Your task to perform on an android device: toggle pop-ups in chrome Image 0: 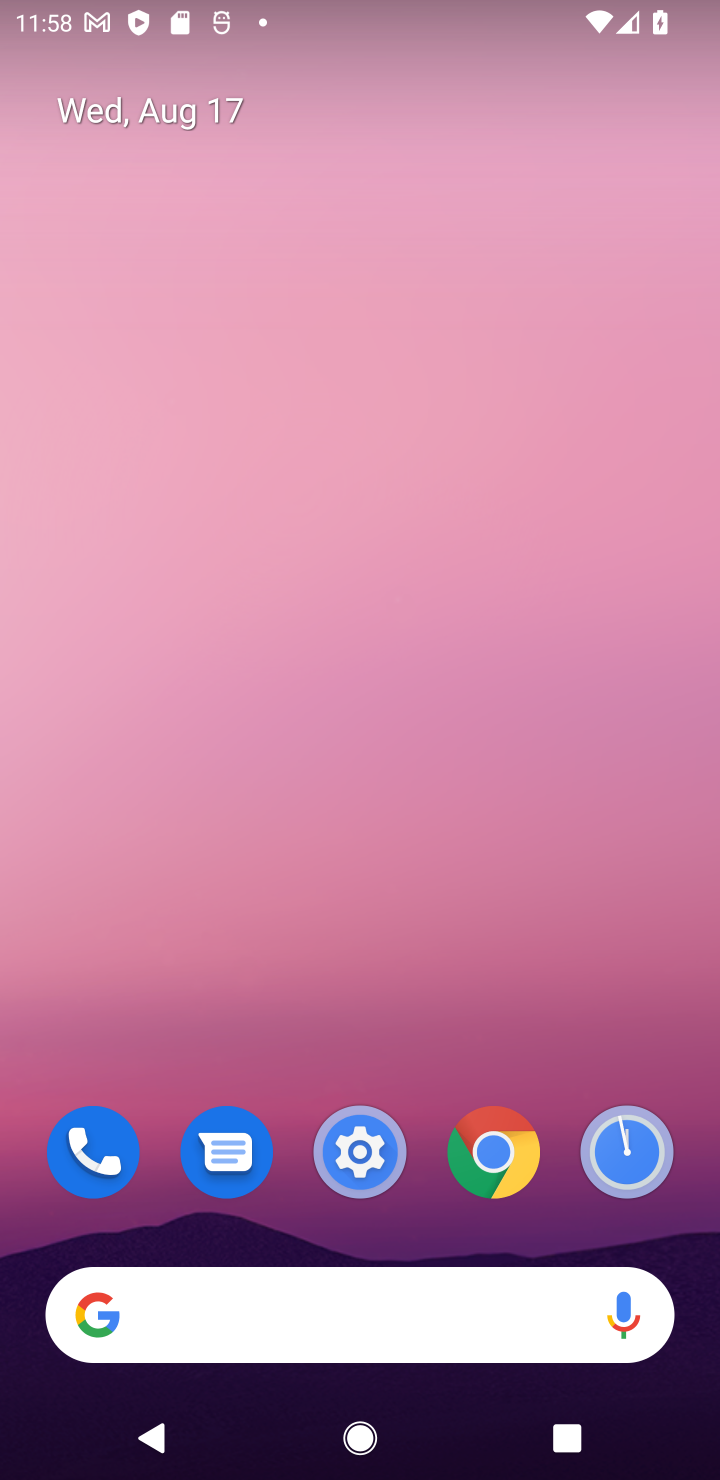
Step 0: drag from (569, 1222) to (390, 0)
Your task to perform on an android device: toggle pop-ups in chrome Image 1: 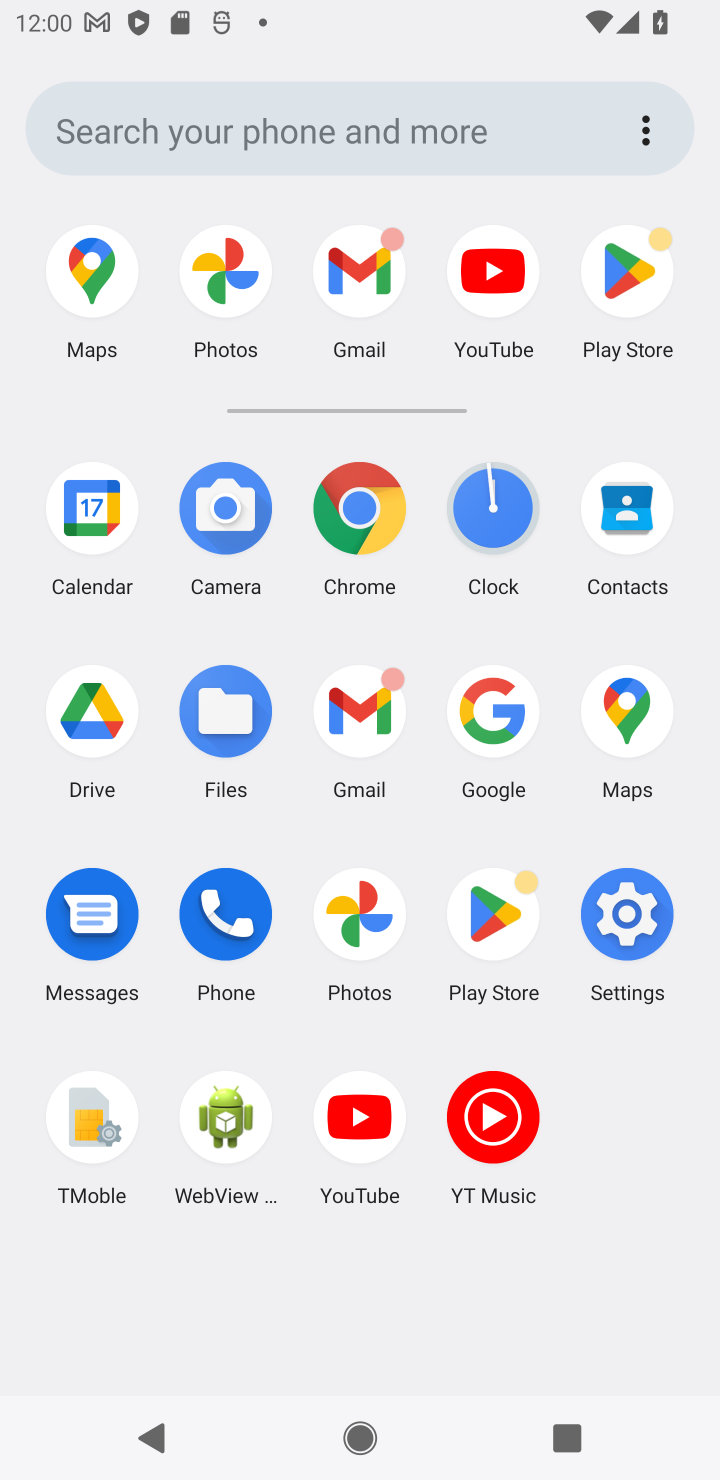
Step 1: click (369, 511)
Your task to perform on an android device: toggle pop-ups in chrome Image 2: 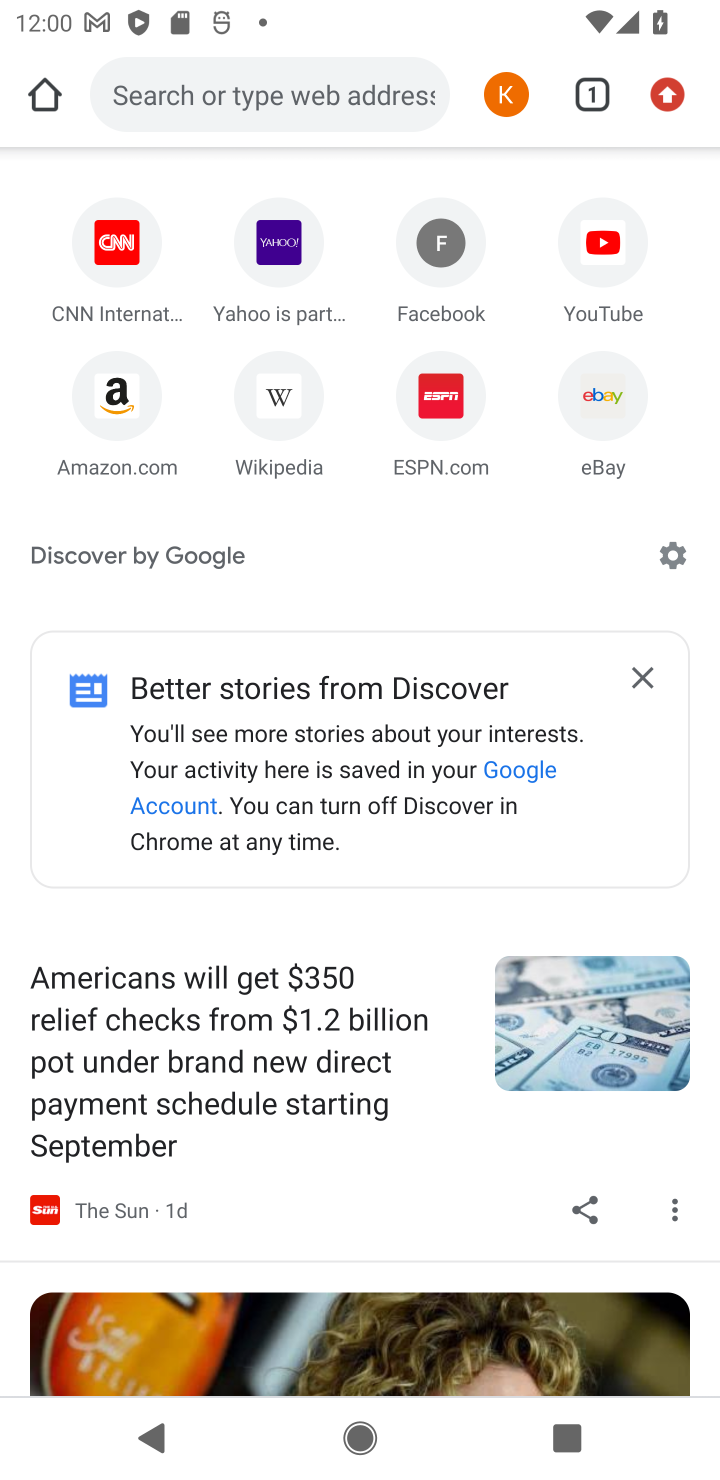
Step 2: click (670, 104)
Your task to perform on an android device: toggle pop-ups in chrome Image 3: 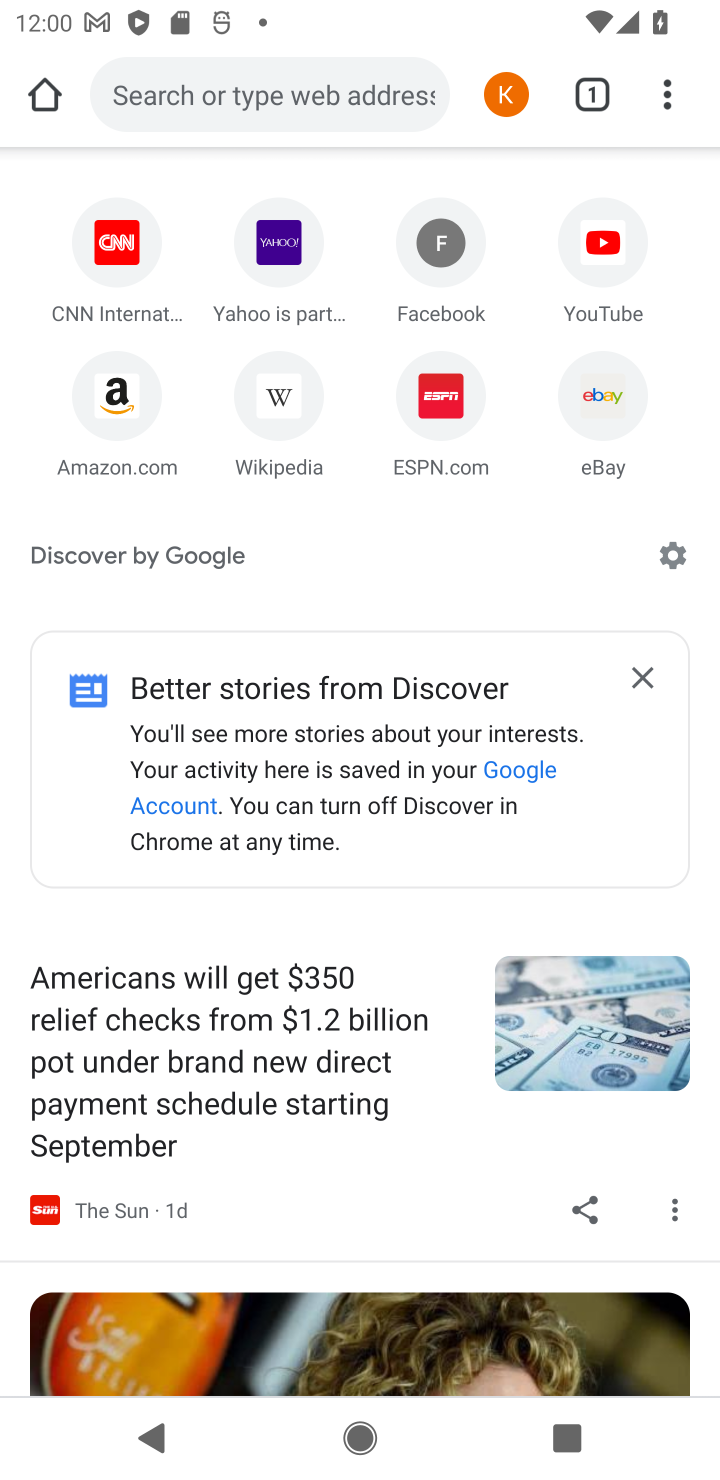
Step 3: click (661, 86)
Your task to perform on an android device: toggle pop-ups in chrome Image 4: 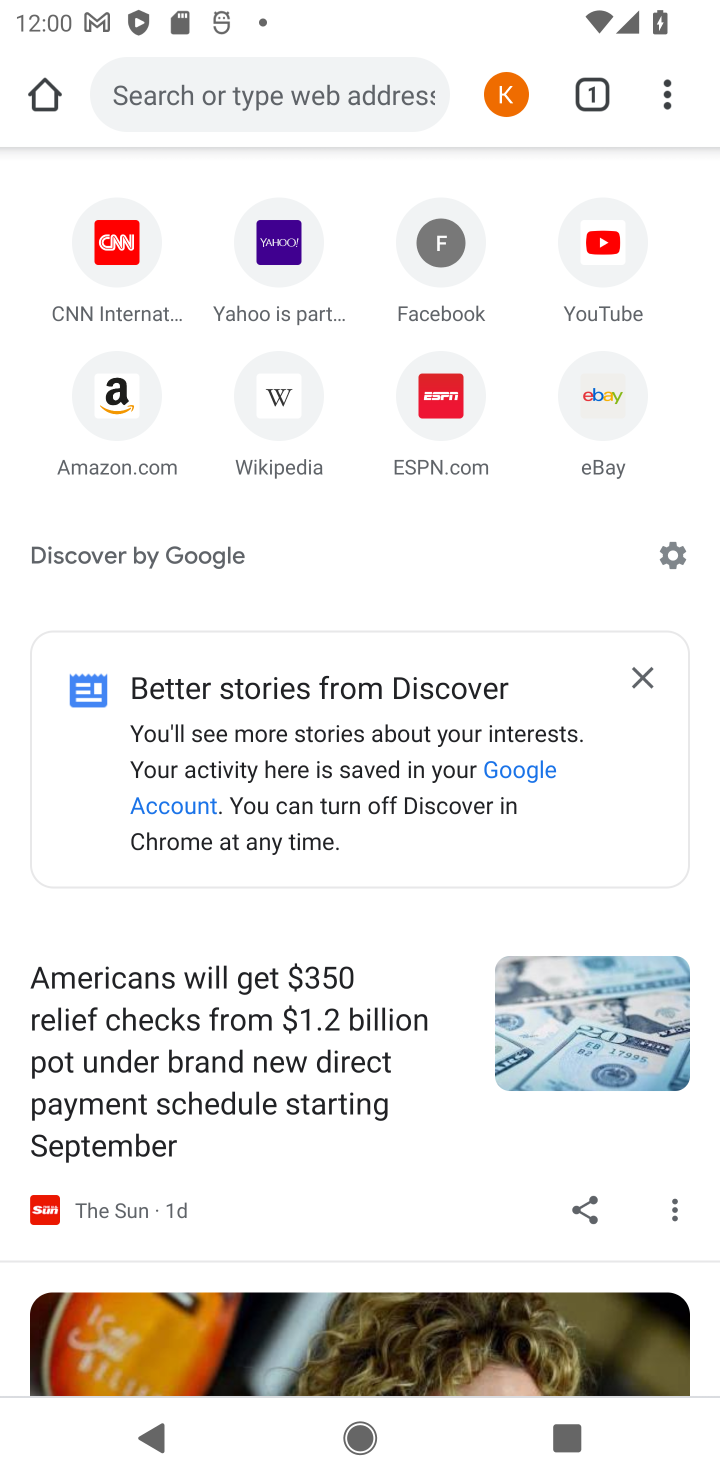
Step 4: click (662, 77)
Your task to perform on an android device: toggle pop-ups in chrome Image 5: 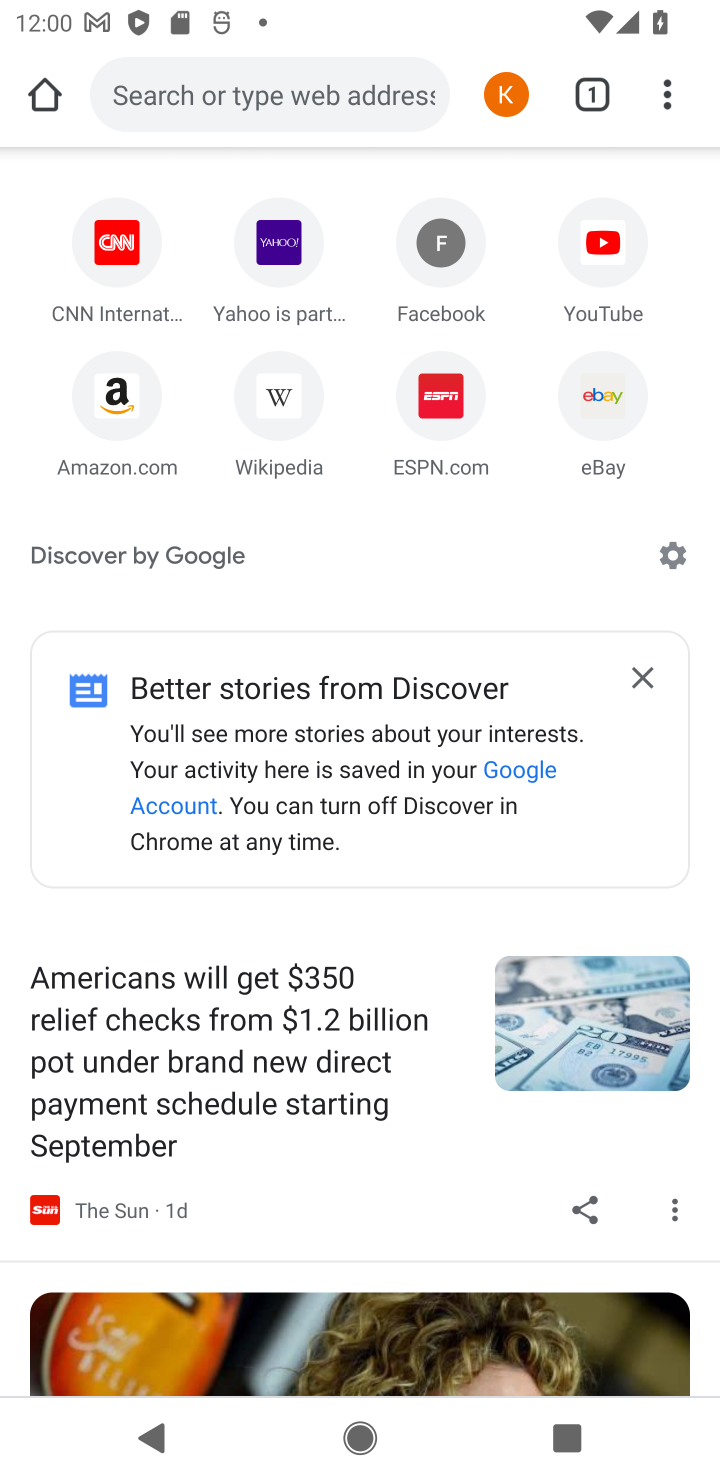
Step 5: click (662, 77)
Your task to perform on an android device: toggle pop-ups in chrome Image 6: 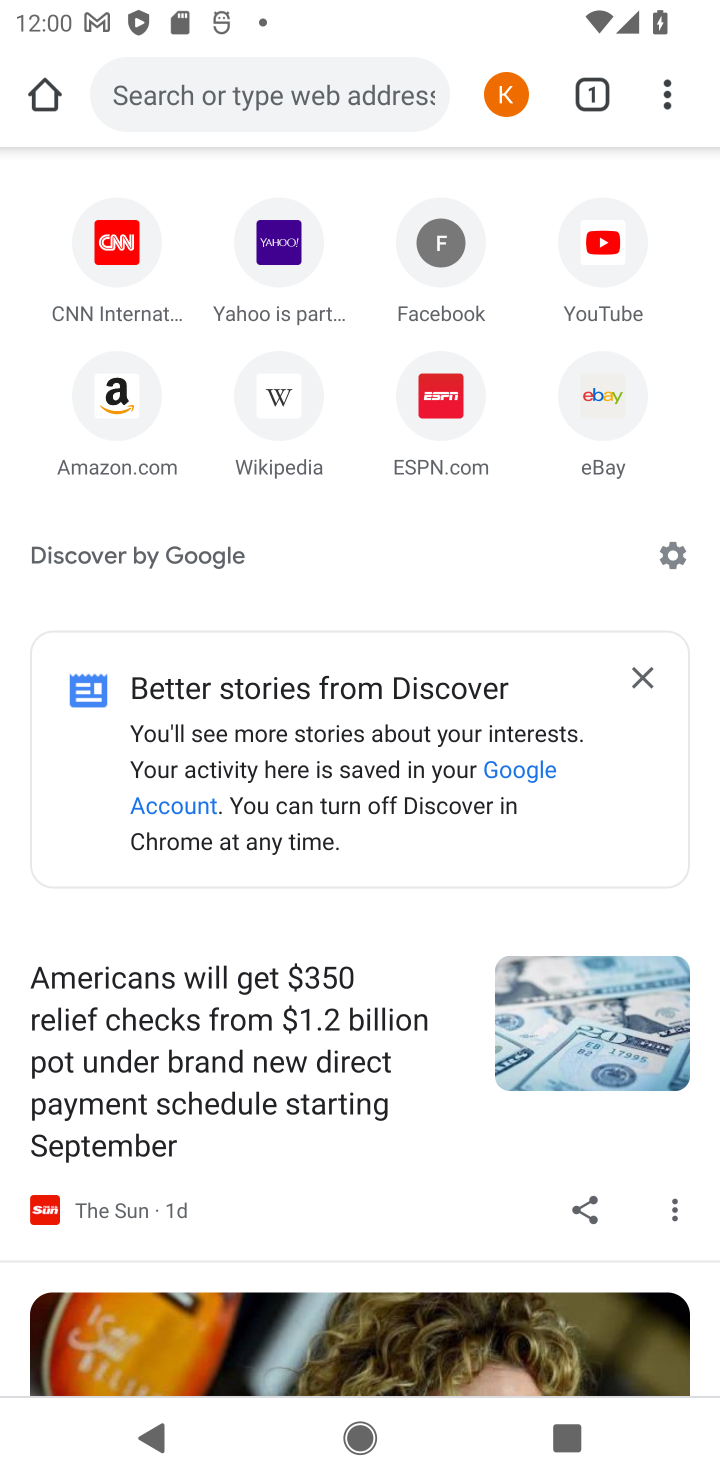
Step 6: click (662, 86)
Your task to perform on an android device: toggle pop-ups in chrome Image 7: 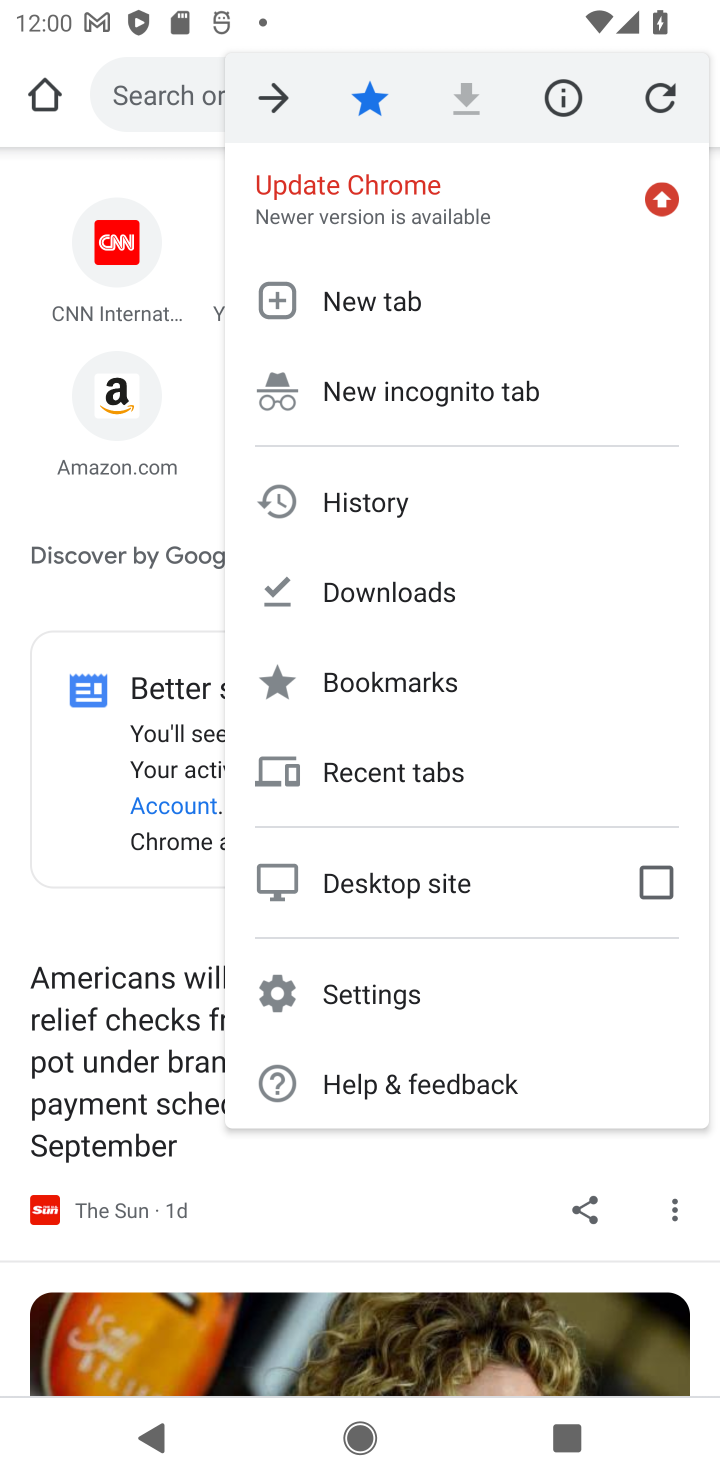
Step 7: click (369, 1008)
Your task to perform on an android device: toggle pop-ups in chrome Image 8: 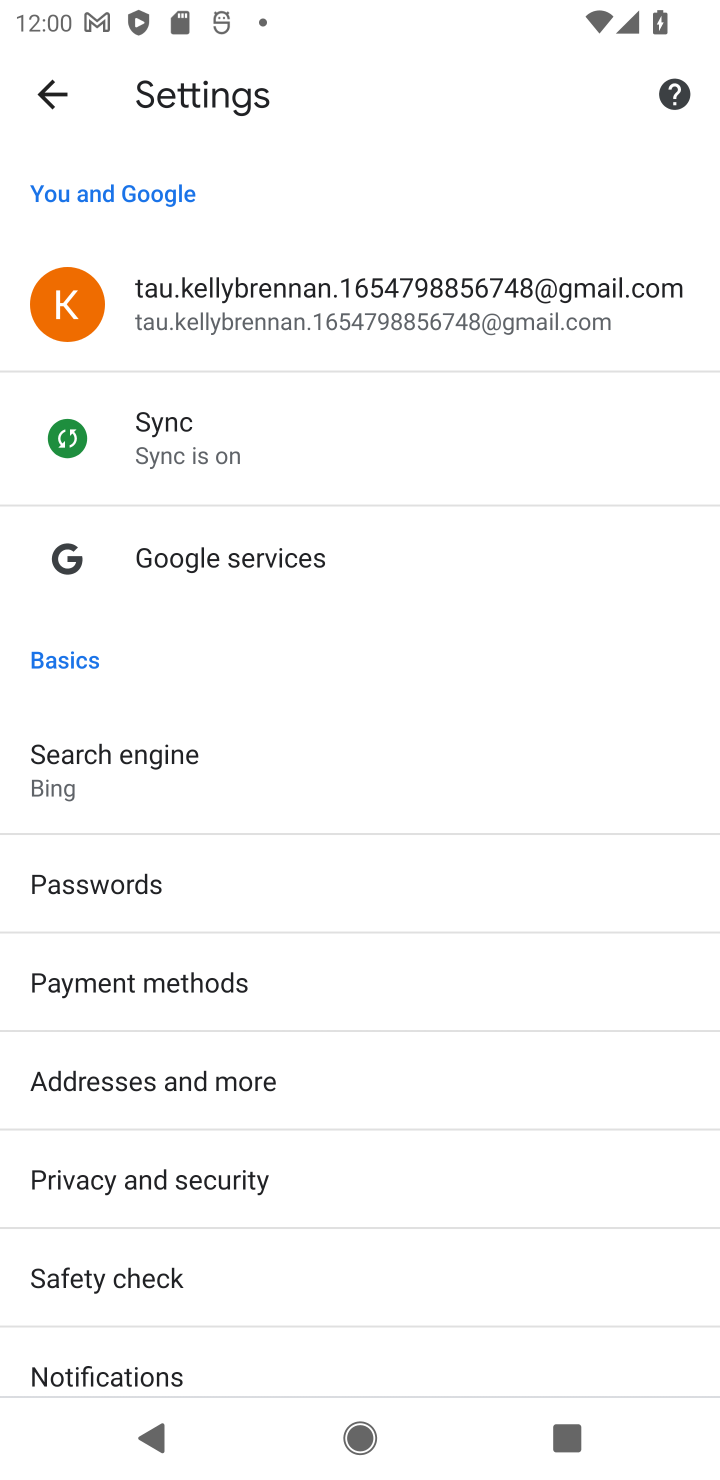
Step 8: drag from (295, 1307) to (323, 98)
Your task to perform on an android device: toggle pop-ups in chrome Image 9: 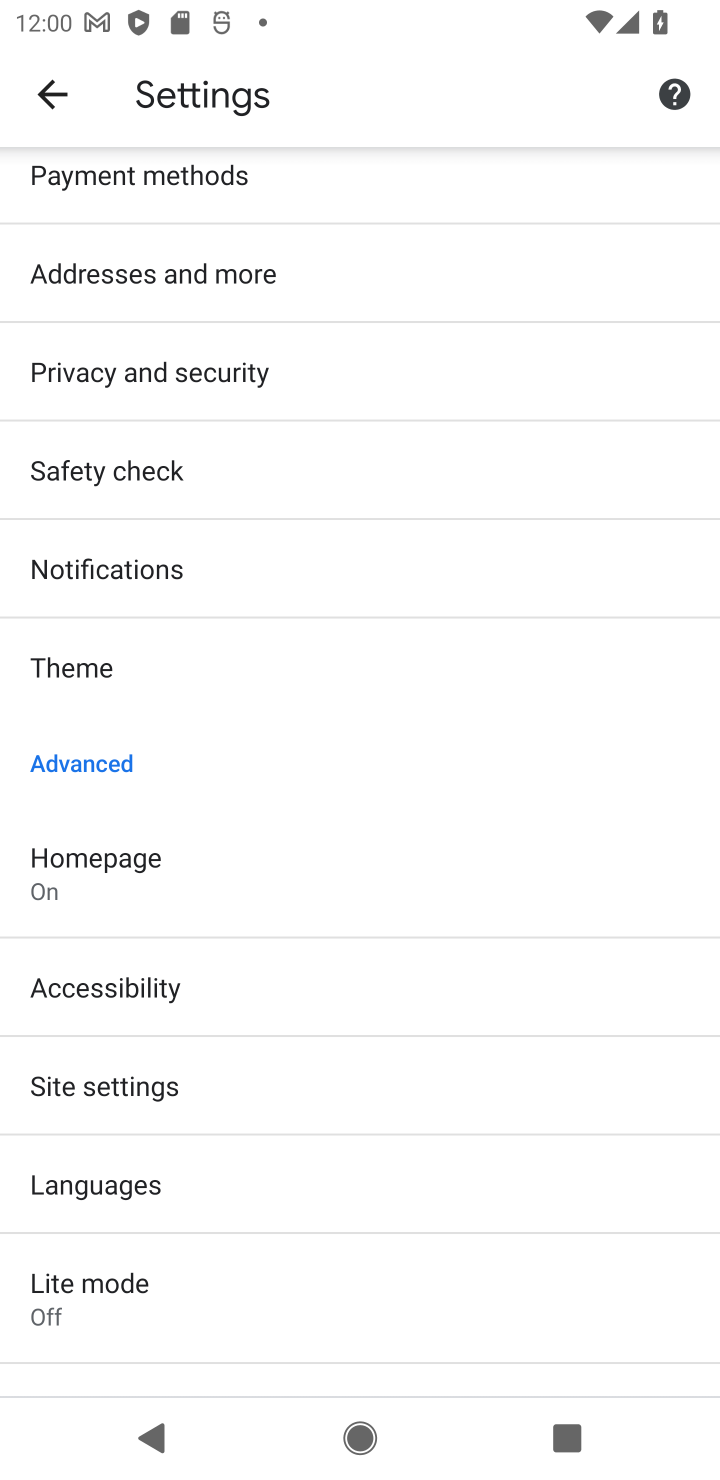
Step 9: click (136, 1117)
Your task to perform on an android device: toggle pop-ups in chrome Image 10: 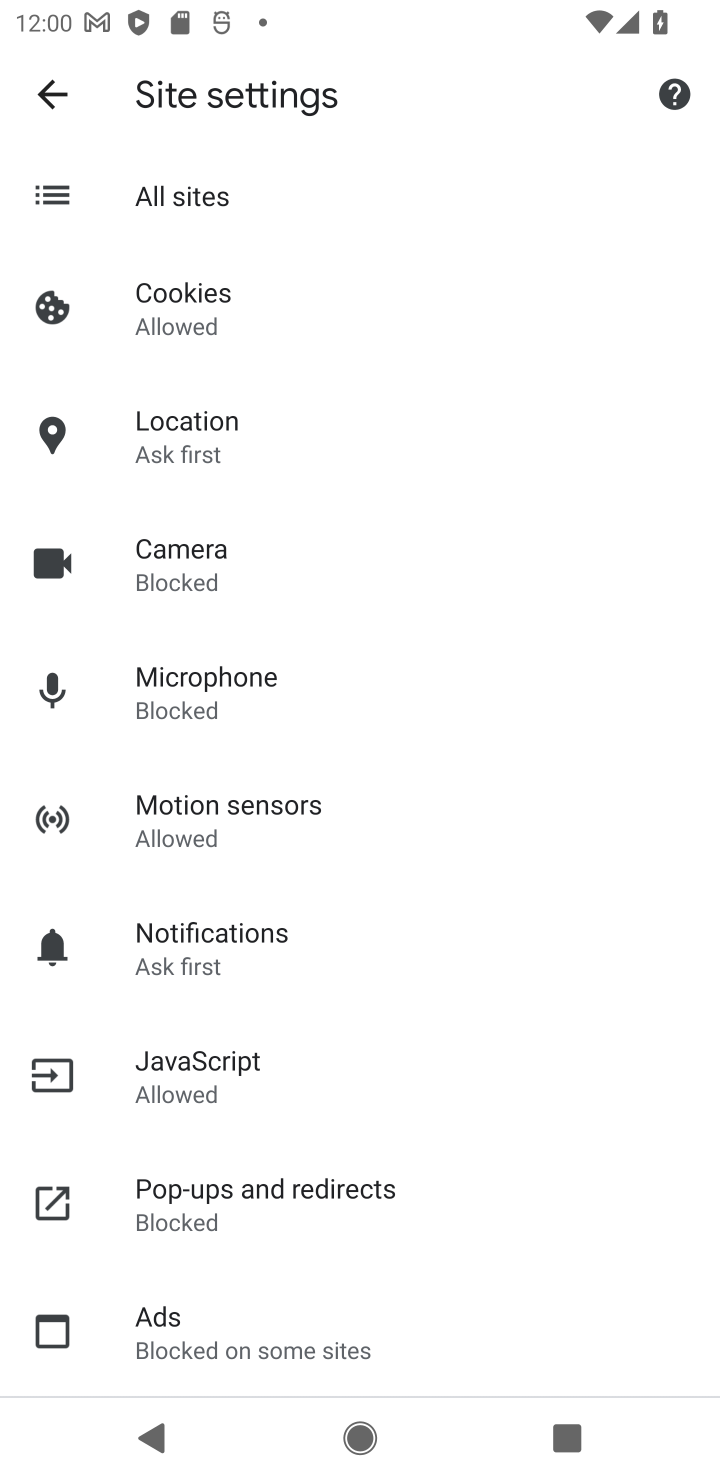
Step 10: click (379, 1191)
Your task to perform on an android device: toggle pop-ups in chrome Image 11: 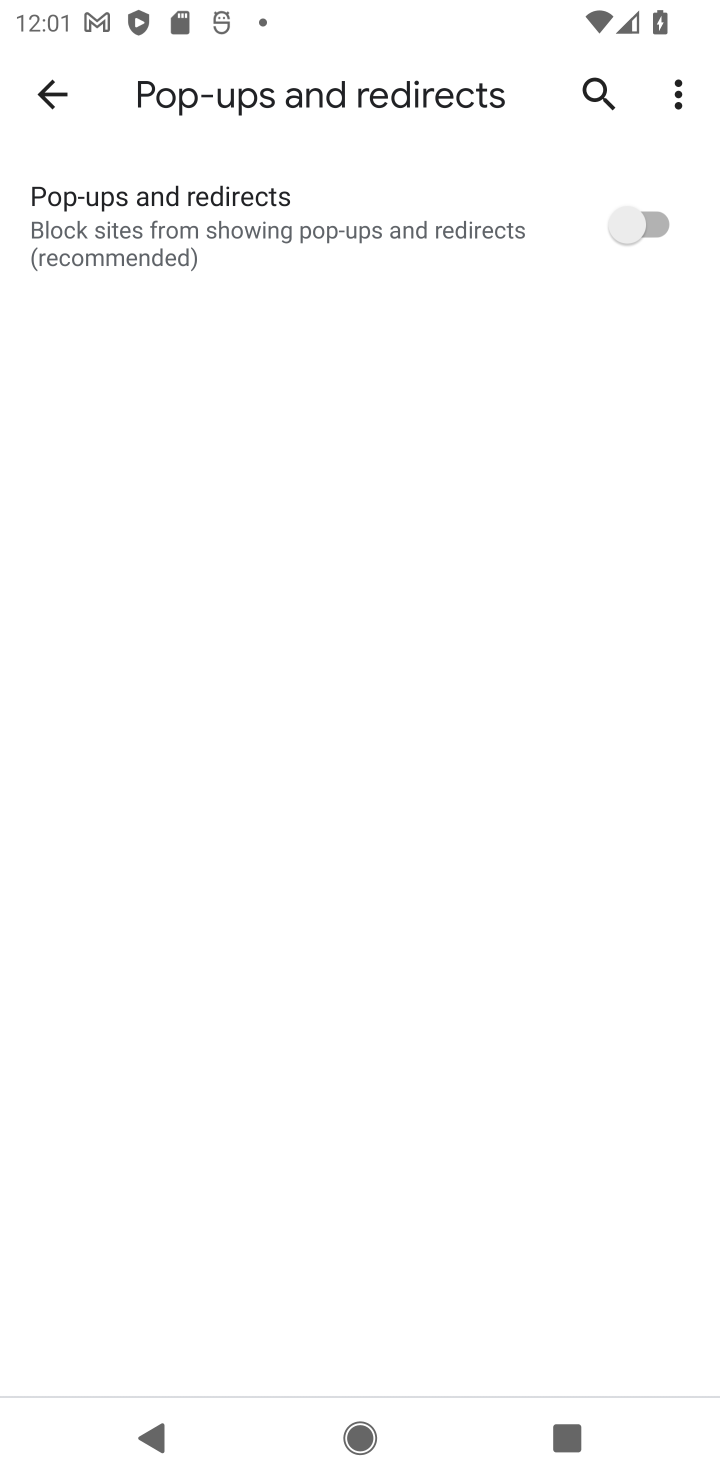
Step 11: click (641, 234)
Your task to perform on an android device: toggle pop-ups in chrome Image 12: 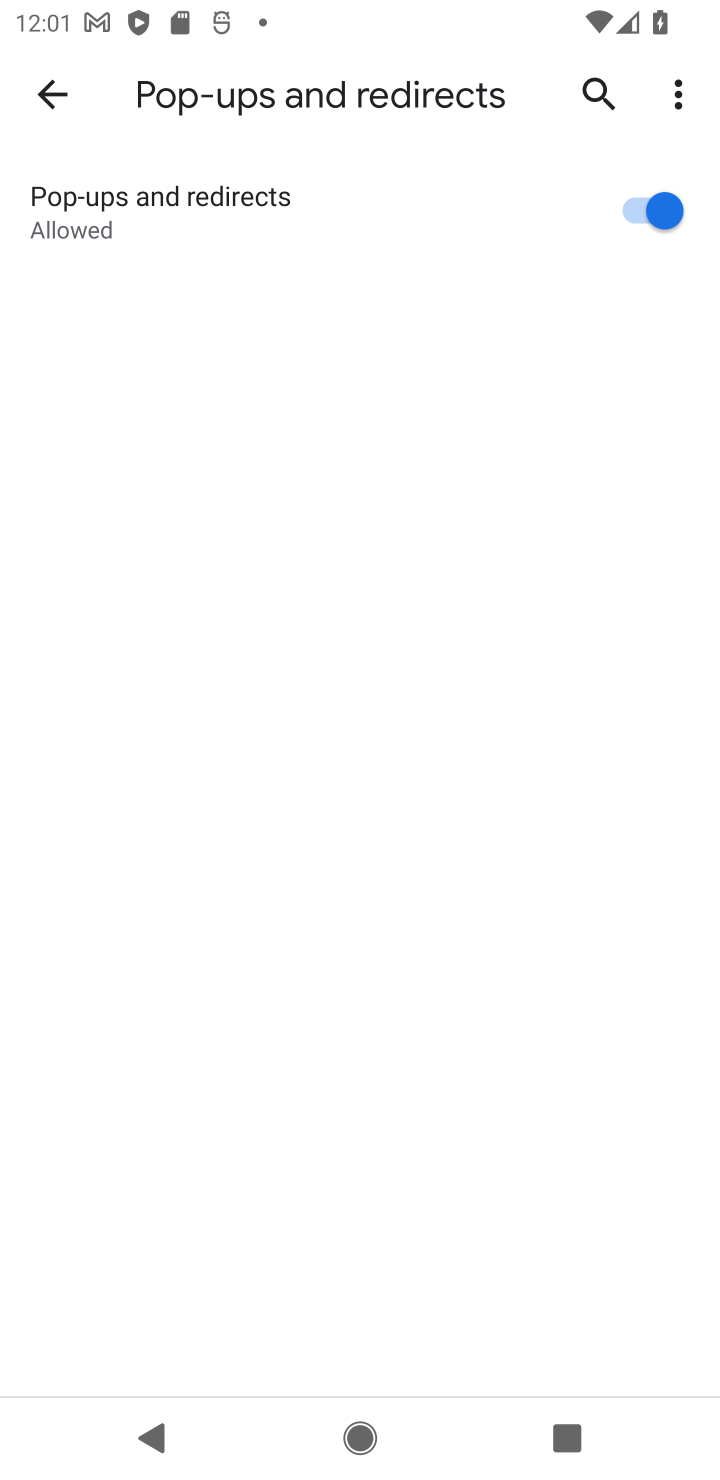
Step 12: task complete